Your task to perform on an android device: set default search engine in the chrome app Image 0: 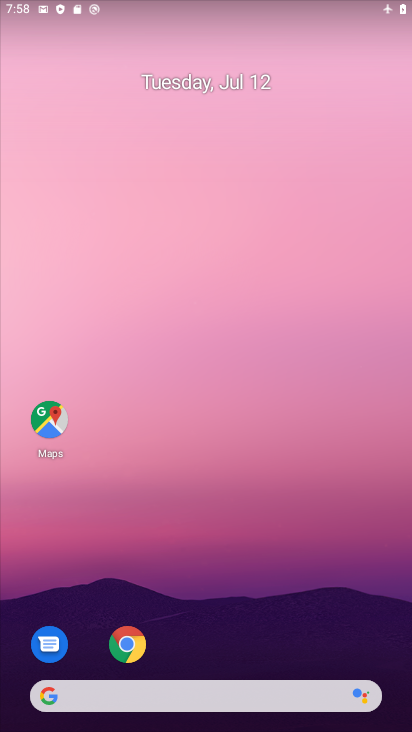
Step 0: click (135, 645)
Your task to perform on an android device: set default search engine in the chrome app Image 1: 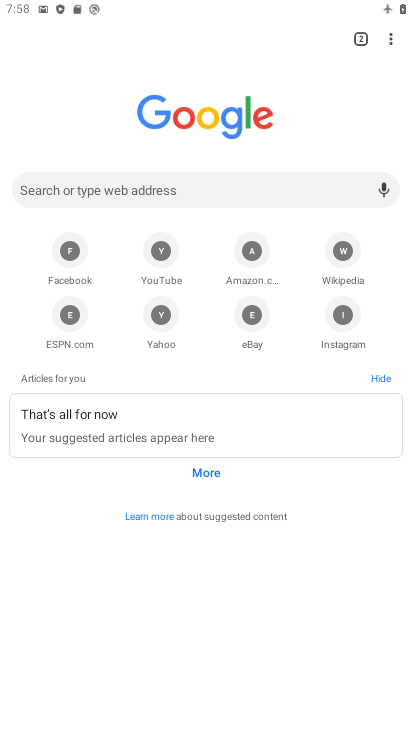
Step 1: click (393, 34)
Your task to perform on an android device: set default search engine in the chrome app Image 2: 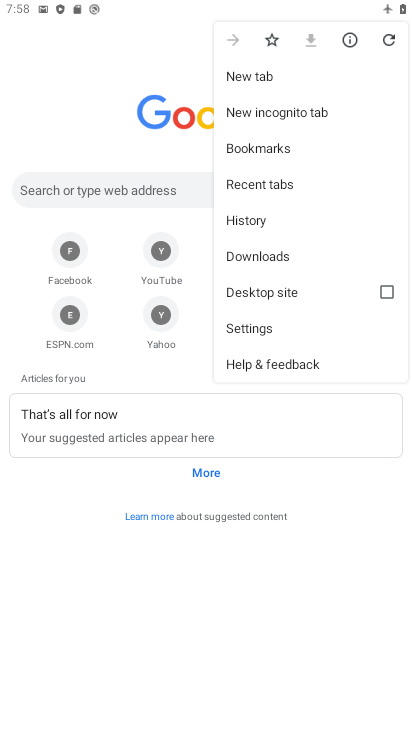
Step 2: click (259, 330)
Your task to perform on an android device: set default search engine in the chrome app Image 3: 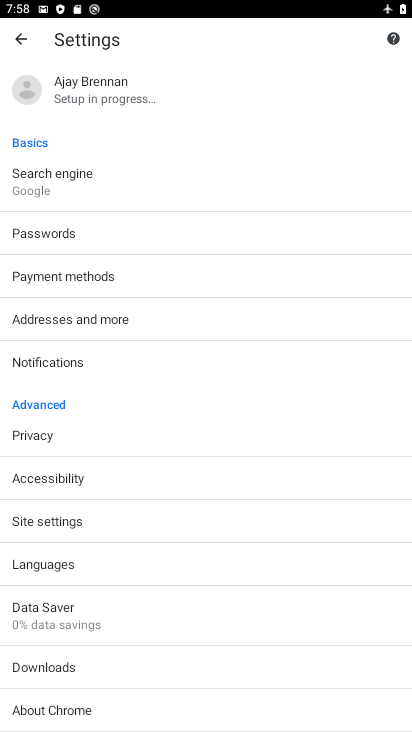
Step 3: click (77, 191)
Your task to perform on an android device: set default search engine in the chrome app Image 4: 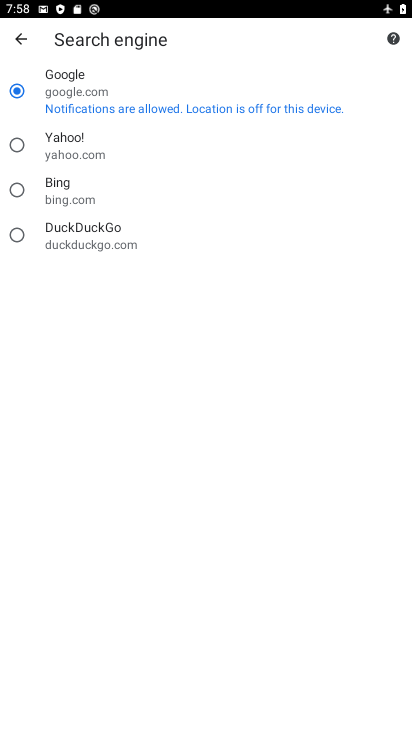
Step 4: task complete